Your task to perform on an android device: Open battery settings Image 0: 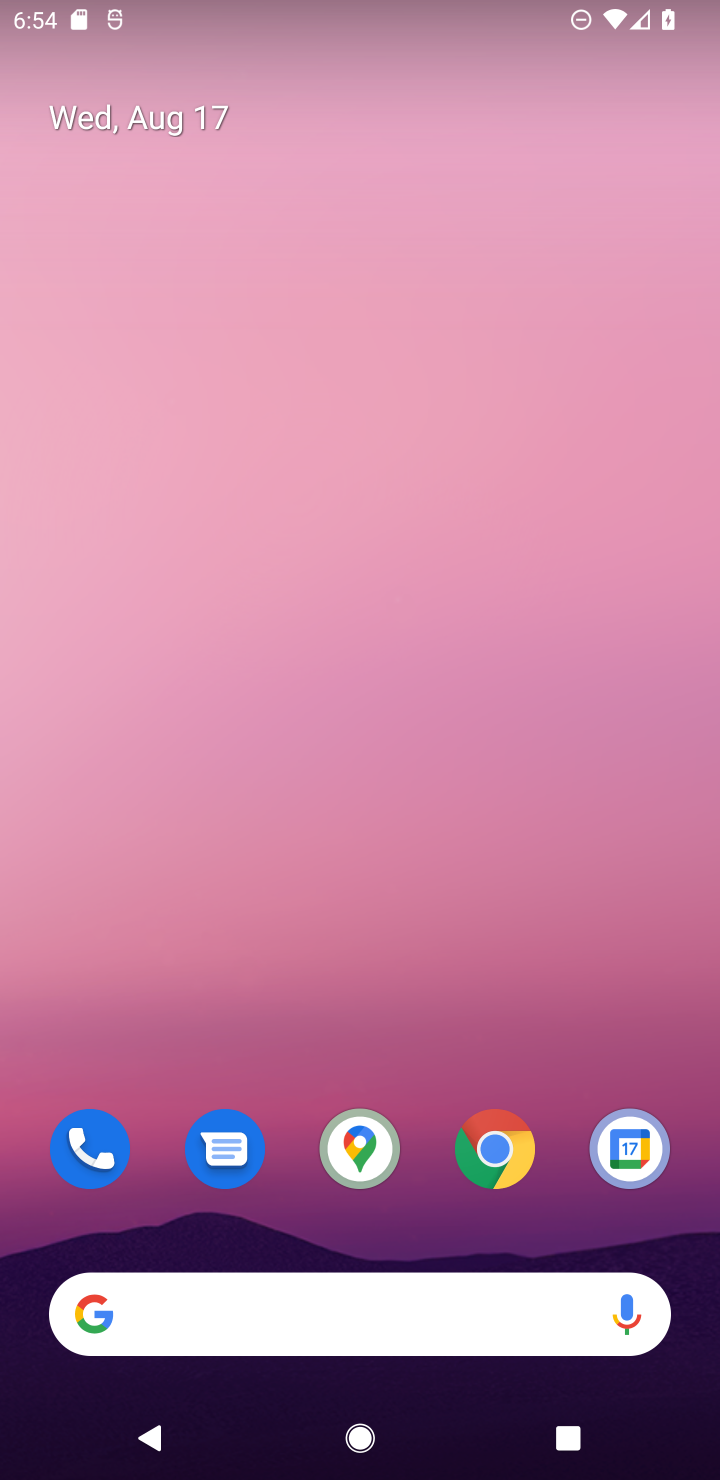
Step 0: drag from (411, 1053) to (304, 310)
Your task to perform on an android device: Open battery settings Image 1: 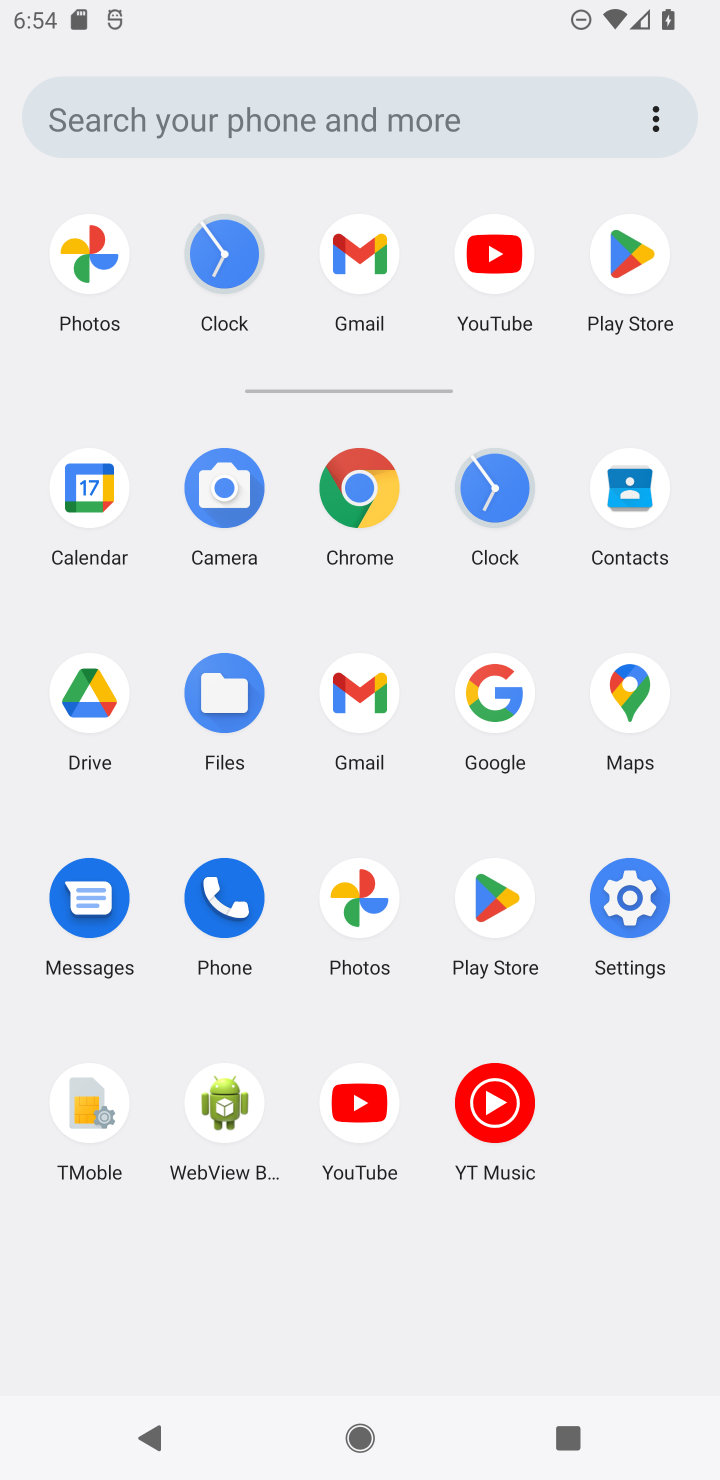
Step 1: click (630, 901)
Your task to perform on an android device: Open battery settings Image 2: 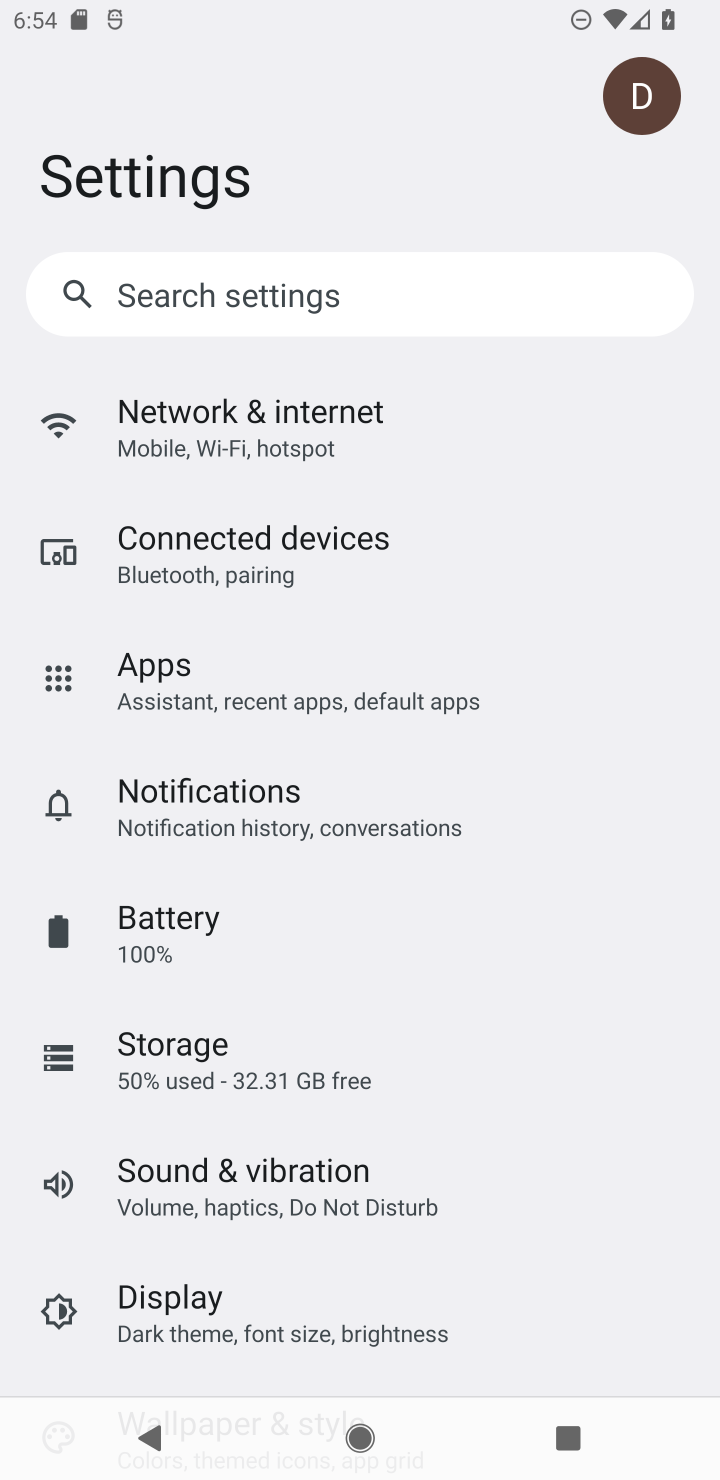
Step 2: click (166, 918)
Your task to perform on an android device: Open battery settings Image 3: 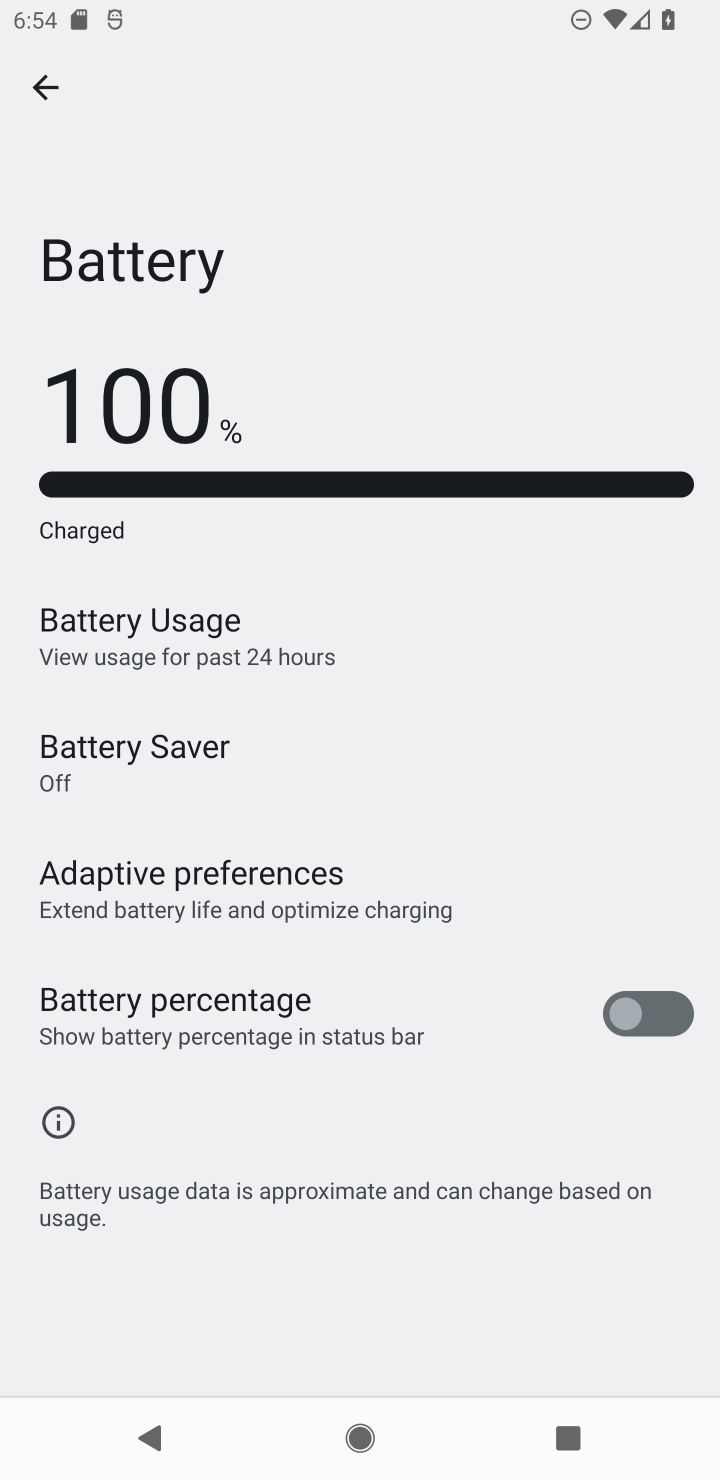
Step 3: task complete